Your task to perform on an android device: star an email in the gmail app Image 0: 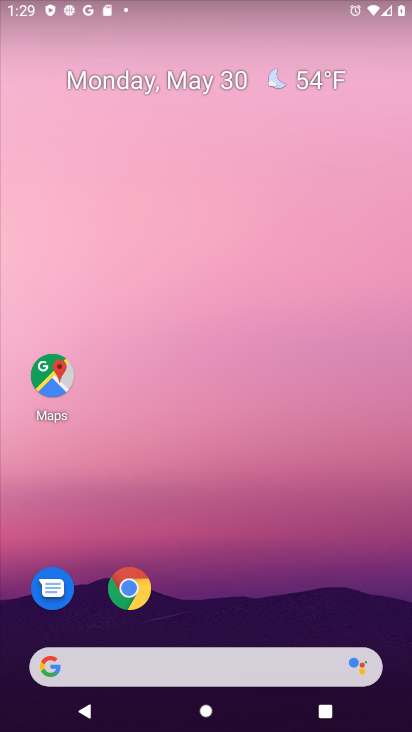
Step 0: drag from (259, 588) to (122, 104)
Your task to perform on an android device: star an email in the gmail app Image 1: 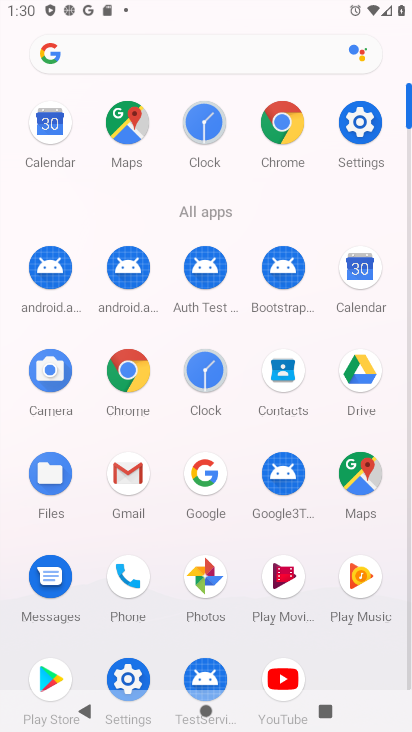
Step 1: click (126, 471)
Your task to perform on an android device: star an email in the gmail app Image 2: 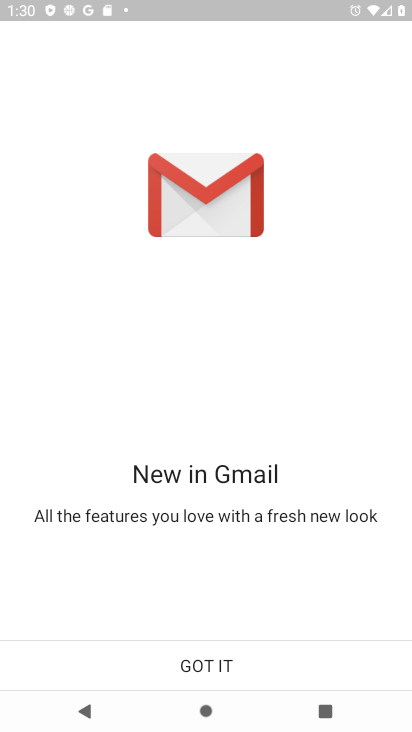
Step 2: click (208, 664)
Your task to perform on an android device: star an email in the gmail app Image 3: 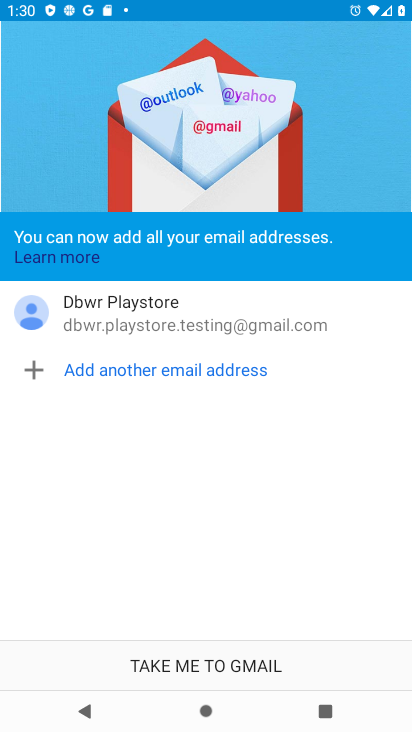
Step 3: click (208, 664)
Your task to perform on an android device: star an email in the gmail app Image 4: 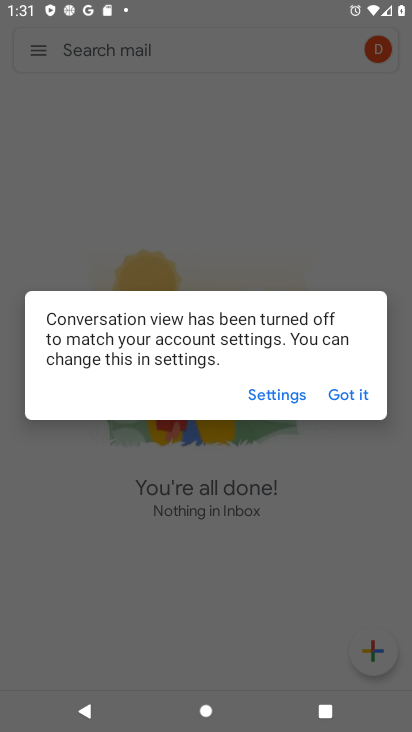
Step 4: click (362, 393)
Your task to perform on an android device: star an email in the gmail app Image 5: 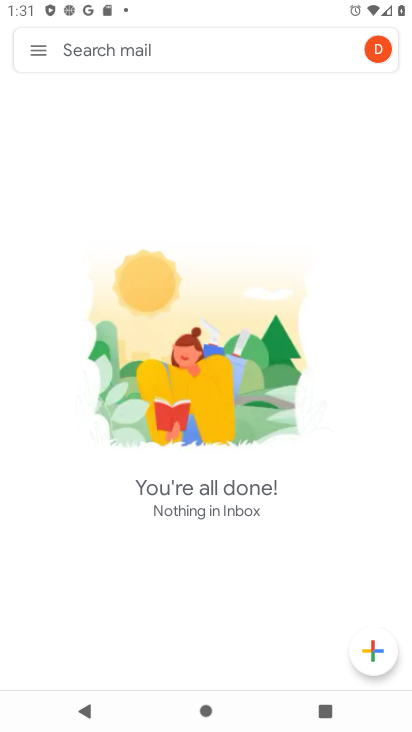
Step 5: click (39, 51)
Your task to perform on an android device: star an email in the gmail app Image 6: 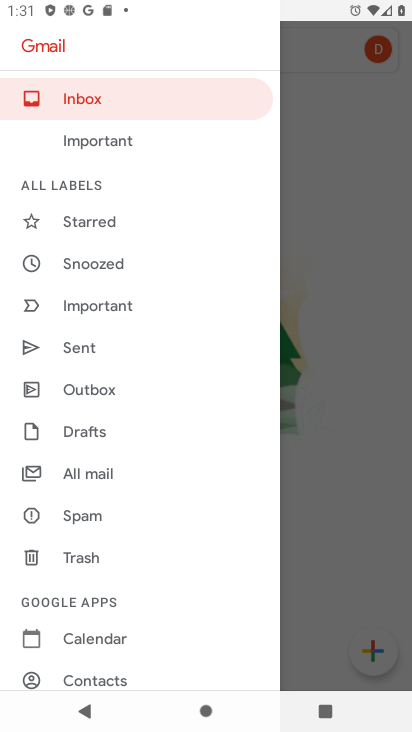
Step 6: click (98, 212)
Your task to perform on an android device: star an email in the gmail app Image 7: 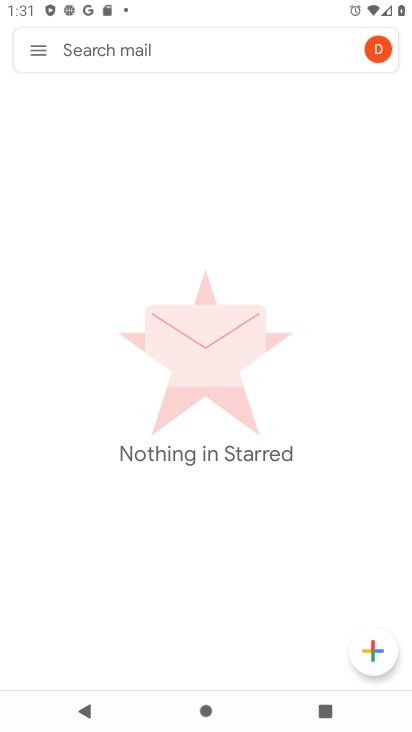
Step 7: click (40, 55)
Your task to perform on an android device: star an email in the gmail app Image 8: 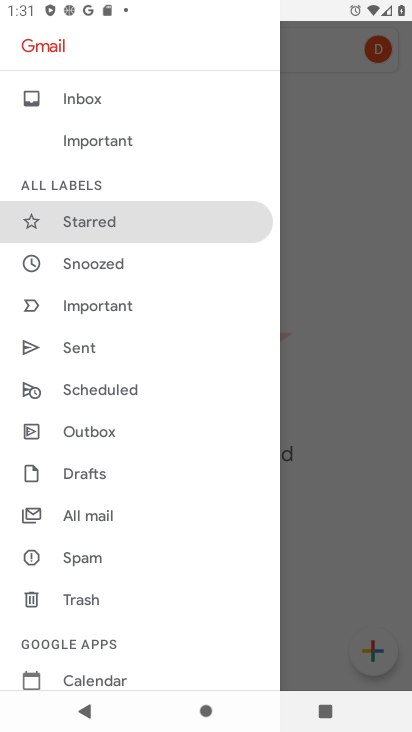
Step 8: click (97, 513)
Your task to perform on an android device: star an email in the gmail app Image 9: 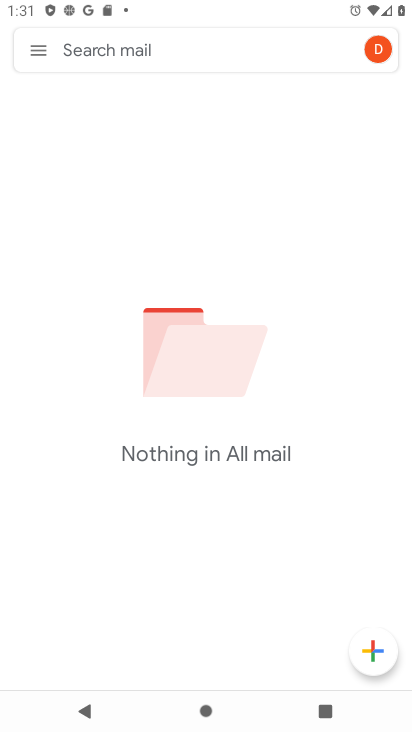
Step 9: task complete